Your task to perform on an android device: Open Reddit.com Image 0: 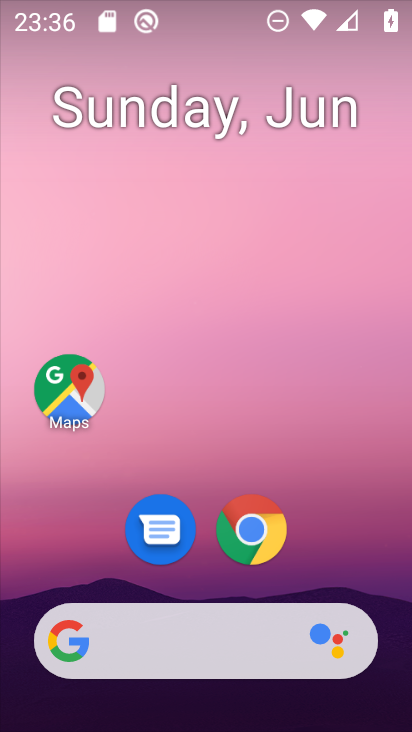
Step 0: click (252, 535)
Your task to perform on an android device: Open Reddit.com Image 1: 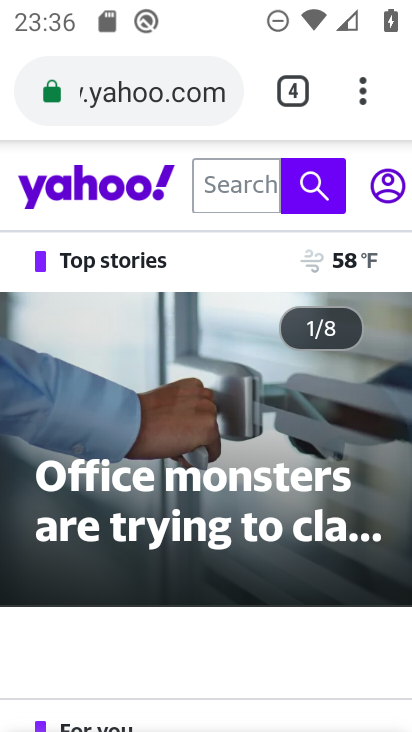
Step 1: click (173, 70)
Your task to perform on an android device: Open Reddit.com Image 2: 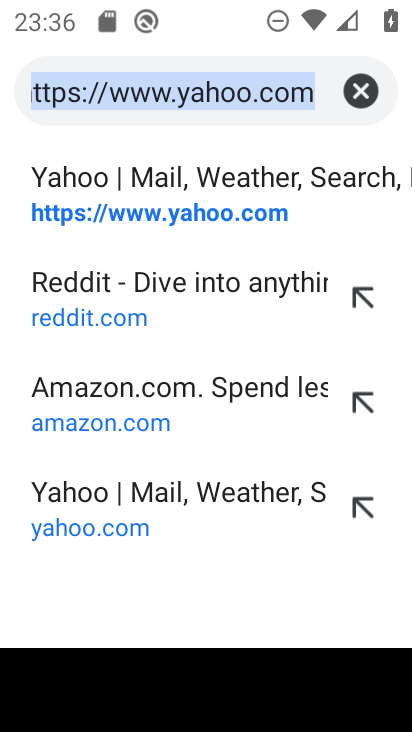
Step 2: click (350, 91)
Your task to perform on an android device: Open Reddit.com Image 3: 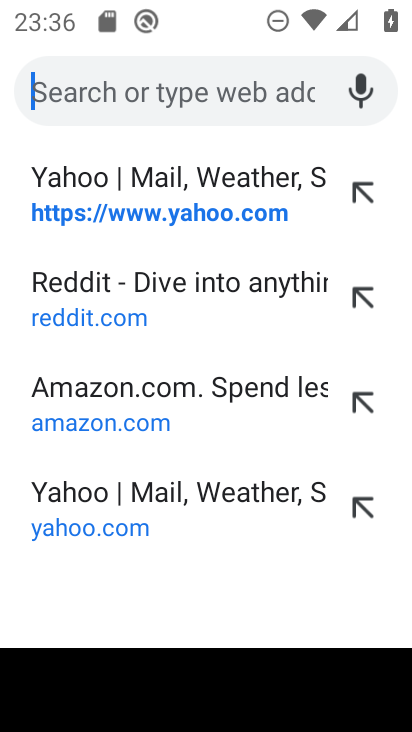
Step 3: type "reddit.com"
Your task to perform on an android device: Open Reddit.com Image 4: 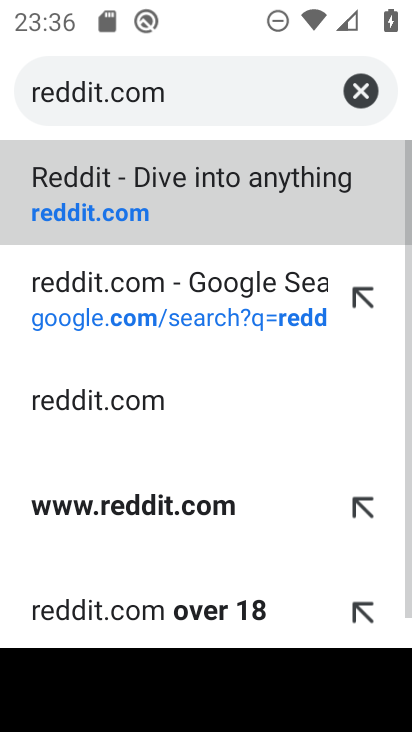
Step 4: click (111, 177)
Your task to perform on an android device: Open Reddit.com Image 5: 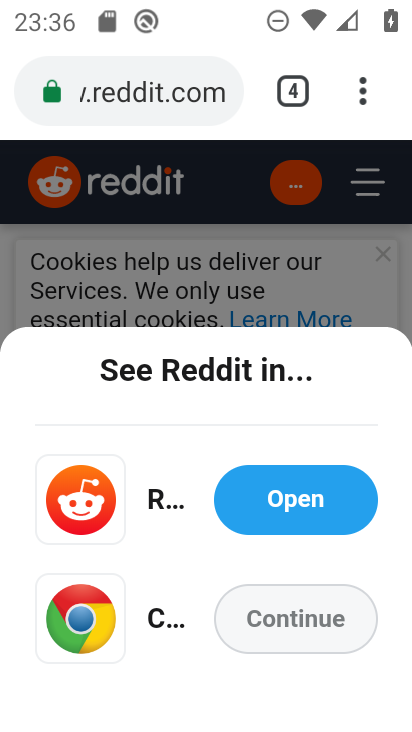
Step 5: task complete